Your task to perform on an android device: Turn on the flashlight Image 0: 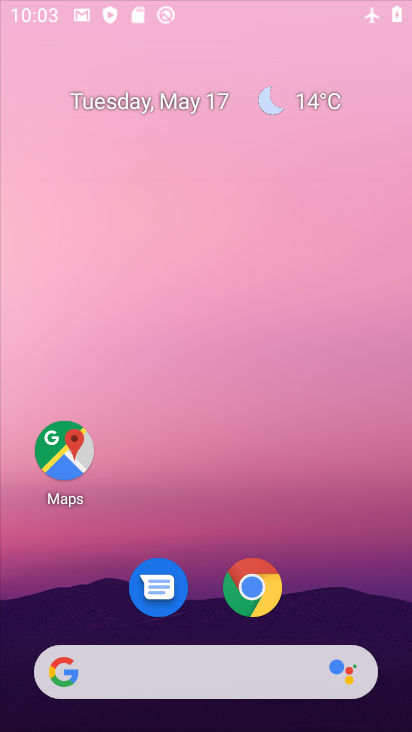
Step 0: click (123, 55)
Your task to perform on an android device: Turn on the flashlight Image 1: 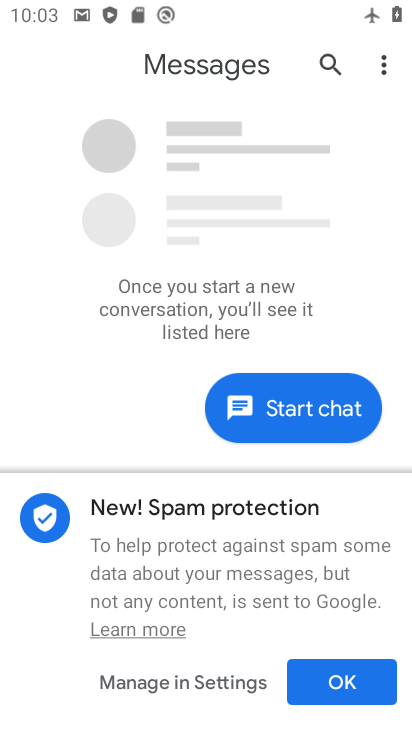
Step 1: drag from (141, 419) to (43, 0)
Your task to perform on an android device: Turn on the flashlight Image 2: 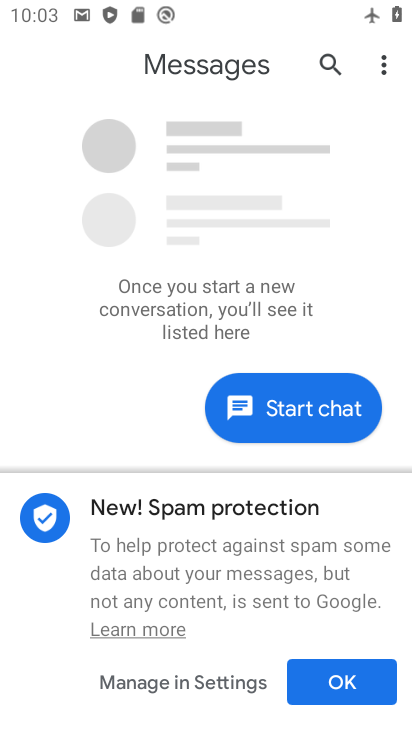
Step 2: drag from (182, 620) to (71, 76)
Your task to perform on an android device: Turn on the flashlight Image 3: 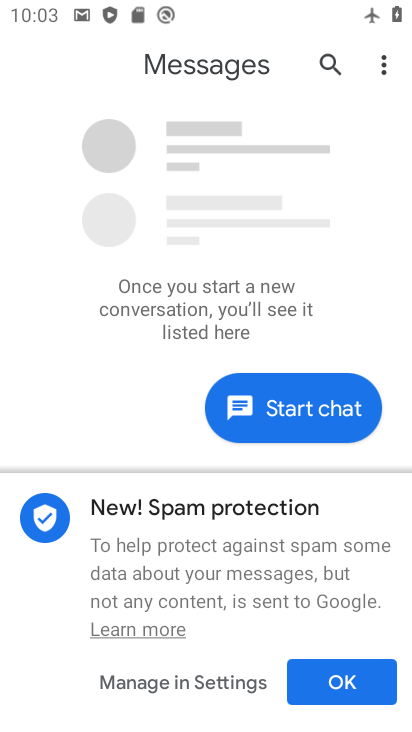
Step 3: drag from (221, 514) to (143, 46)
Your task to perform on an android device: Turn on the flashlight Image 4: 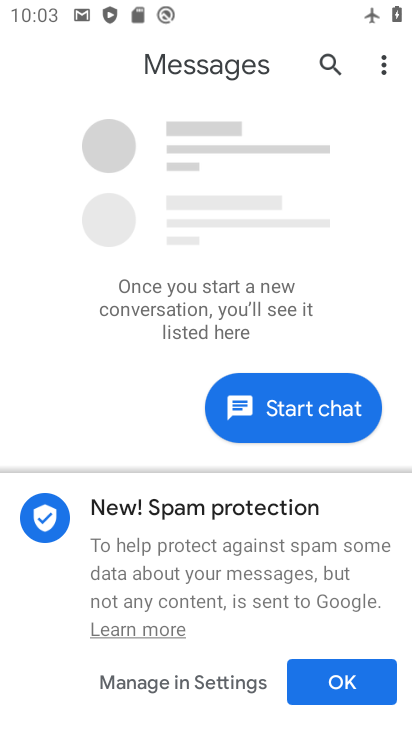
Step 4: click (337, 683)
Your task to perform on an android device: Turn on the flashlight Image 5: 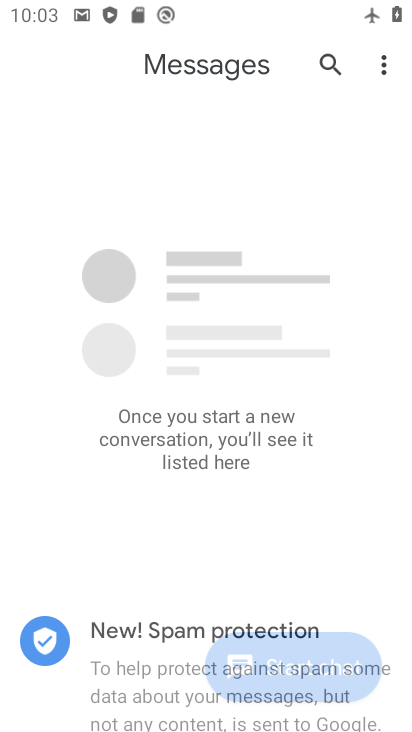
Step 5: click (360, 651)
Your task to perform on an android device: Turn on the flashlight Image 6: 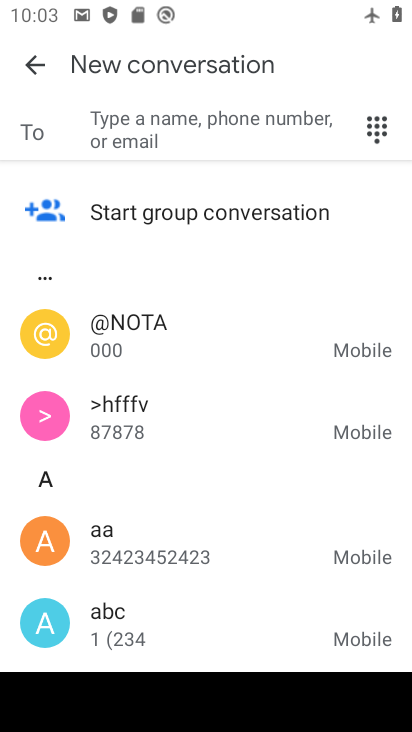
Step 6: click (39, 59)
Your task to perform on an android device: Turn on the flashlight Image 7: 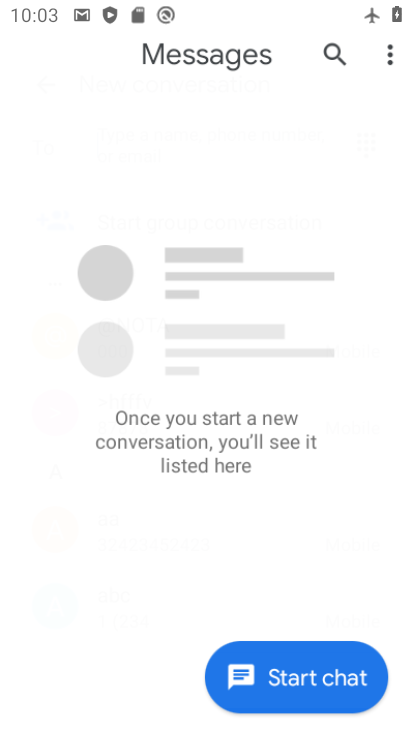
Step 7: click (39, 59)
Your task to perform on an android device: Turn on the flashlight Image 8: 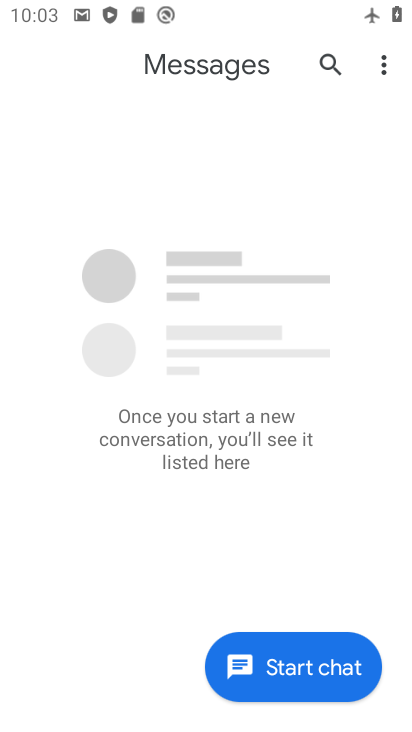
Step 8: click (39, 59)
Your task to perform on an android device: Turn on the flashlight Image 9: 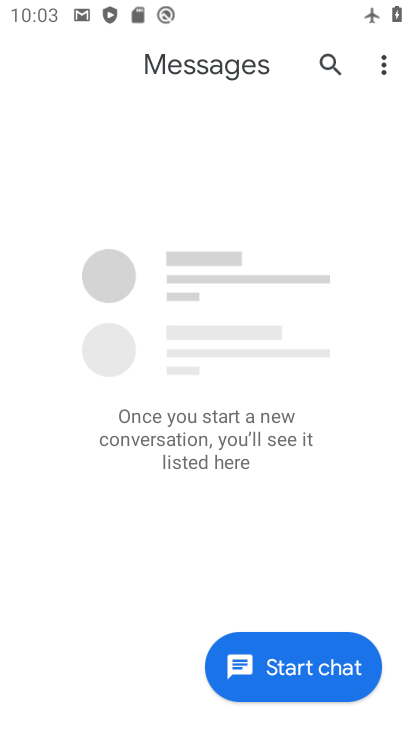
Step 9: task complete